Your task to perform on an android device: Show me recent news Image 0: 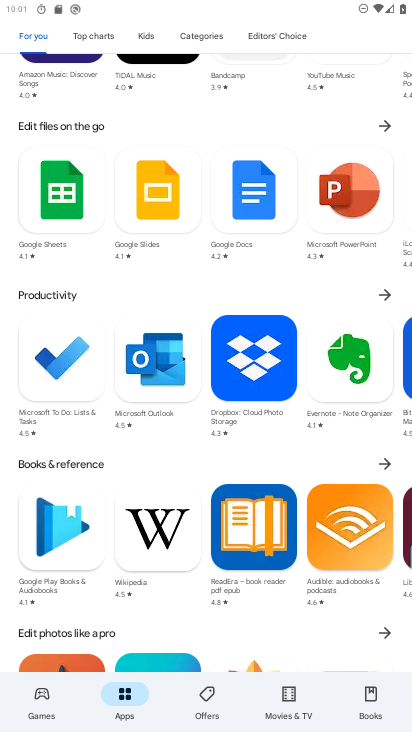
Step 0: press home button
Your task to perform on an android device: Show me recent news Image 1: 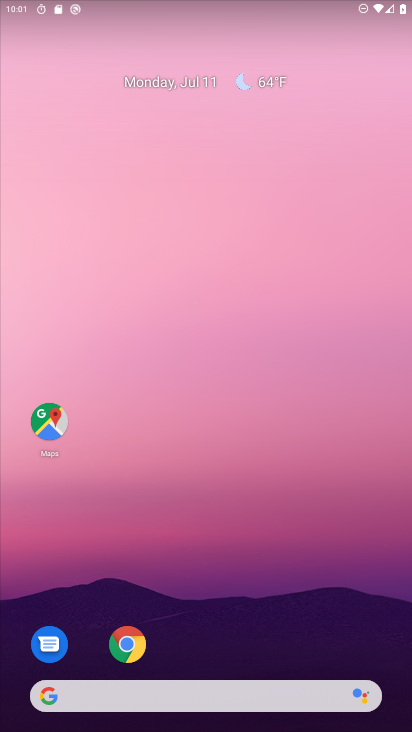
Step 1: click (125, 646)
Your task to perform on an android device: Show me recent news Image 2: 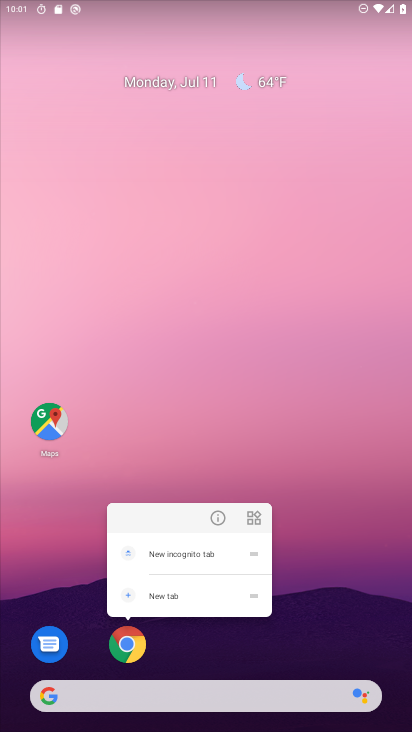
Step 2: click (130, 639)
Your task to perform on an android device: Show me recent news Image 3: 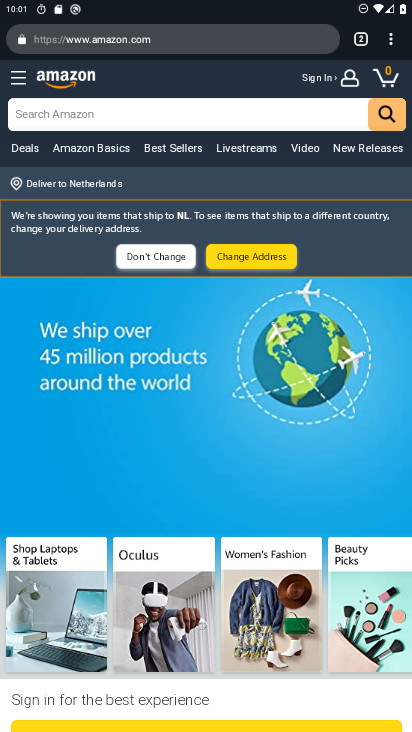
Step 3: click (257, 32)
Your task to perform on an android device: Show me recent news Image 4: 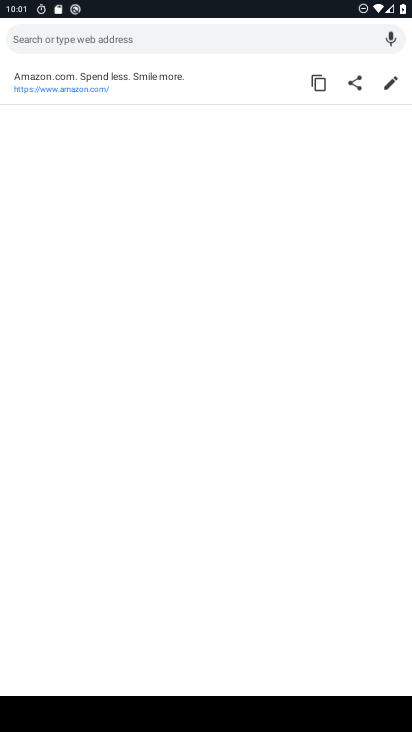
Step 4: type "news"
Your task to perform on an android device: Show me recent news Image 5: 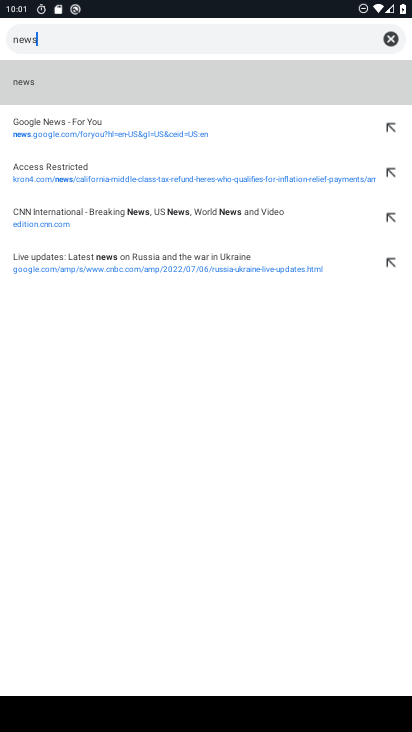
Step 5: click (38, 68)
Your task to perform on an android device: Show me recent news Image 6: 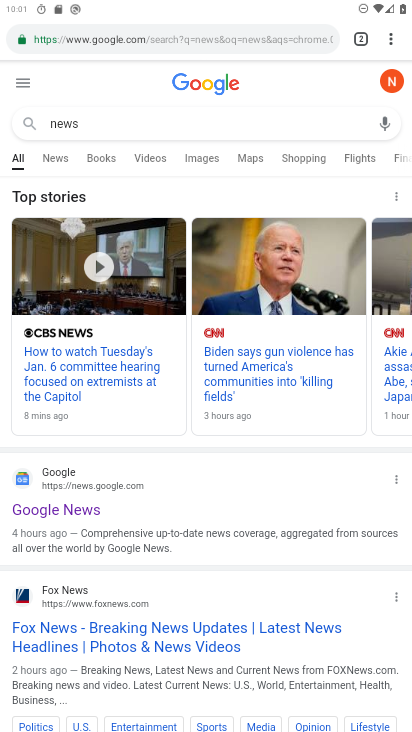
Step 6: click (83, 515)
Your task to perform on an android device: Show me recent news Image 7: 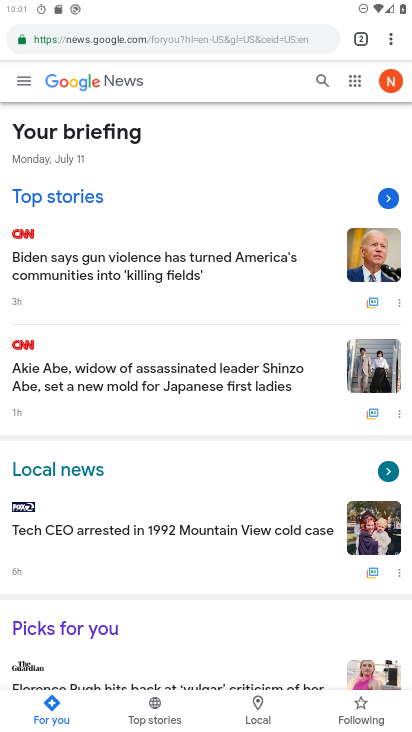
Step 7: task complete